Your task to perform on an android device: Search for Mexican restaurants on Maps Image 0: 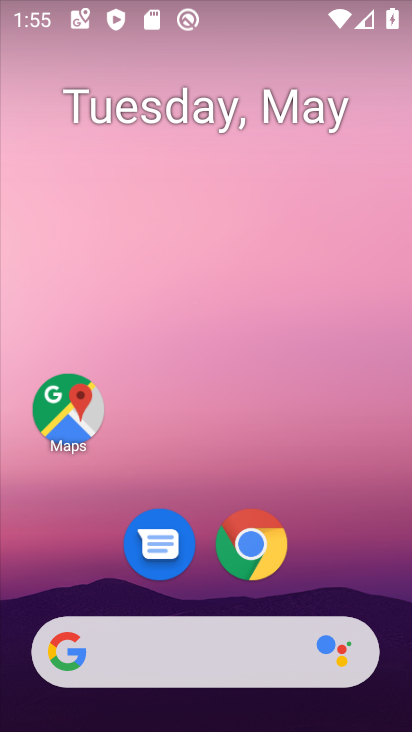
Step 0: click (58, 421)
Your task to perform on an android device: Search for Mexican restaurants on Maps Image 1: 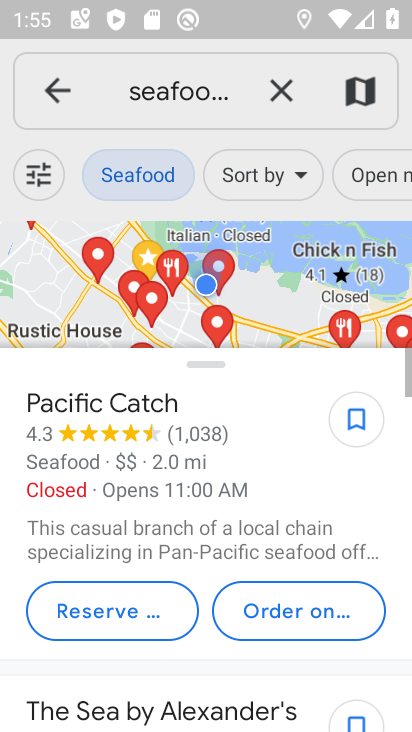
Step 1: click (231, 102)
Your task to perform on an android device: Search for Mexican restaurants on Maps Image 2: 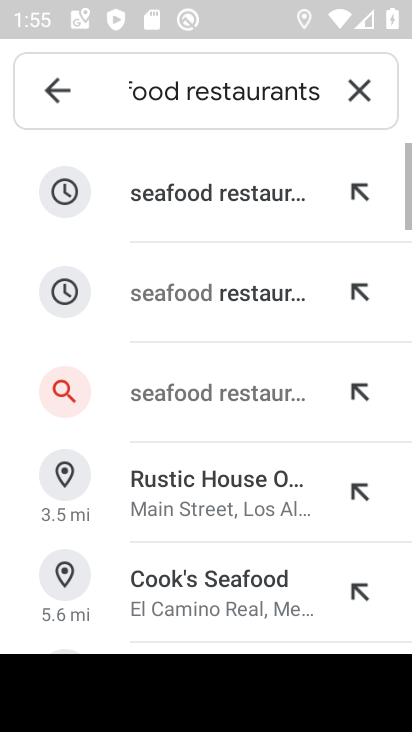
Step 2: click (359, 82)
Your task to perform on an android device: Search for Mexican restaurants on Maps Image 3: 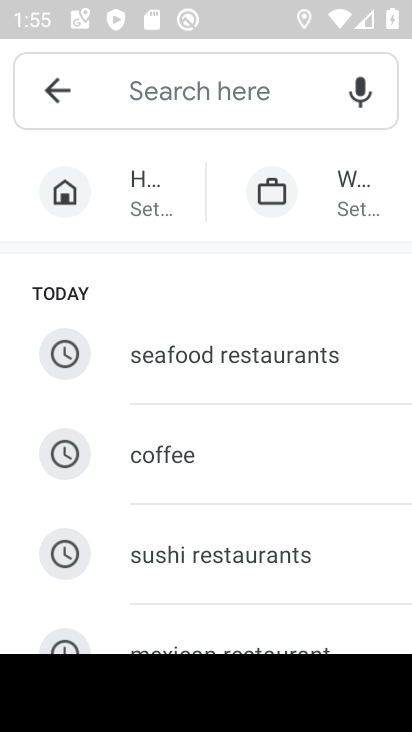
Step 3: drag from (293, 502) to (295, 167)
Your task to perform on an android device: Search for Mexican restaurants on Maps Image 4: 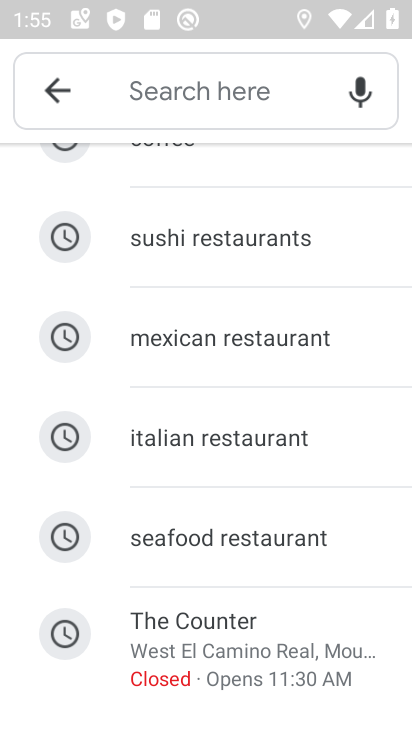
Step 4: click (259, 91)
Your task to perform on an android device: Search for Mexican restaurants on Maps Image 5: 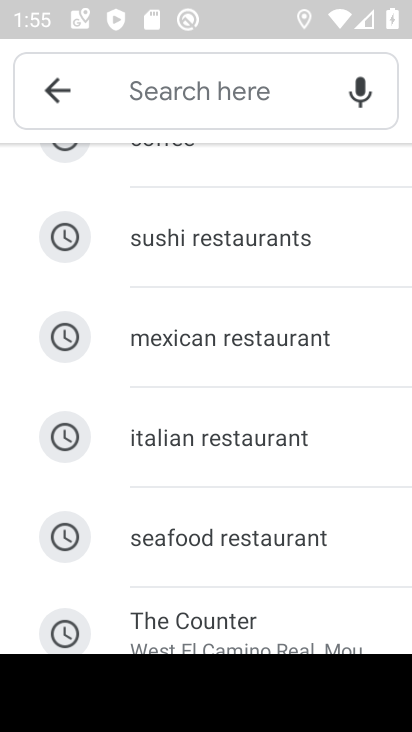
Step 5: type "Mexican restaurants"
Your task to perform on an android device: Search for Mexican restaurants on Maps Image 6: 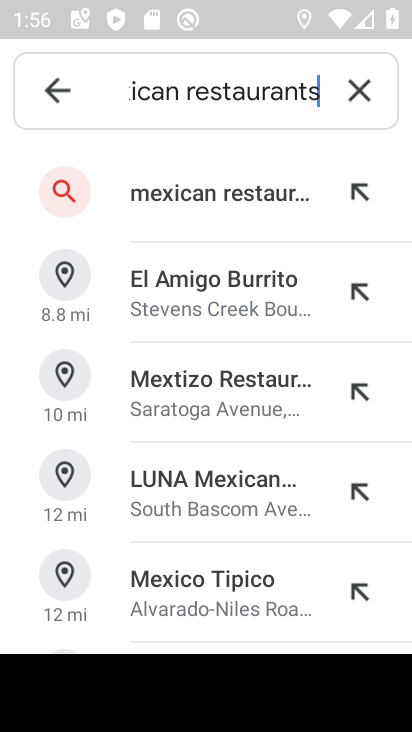
Step 6: press enter
Your task to perform on an android device: Search for Mexican restaurants on Maps Image 7: 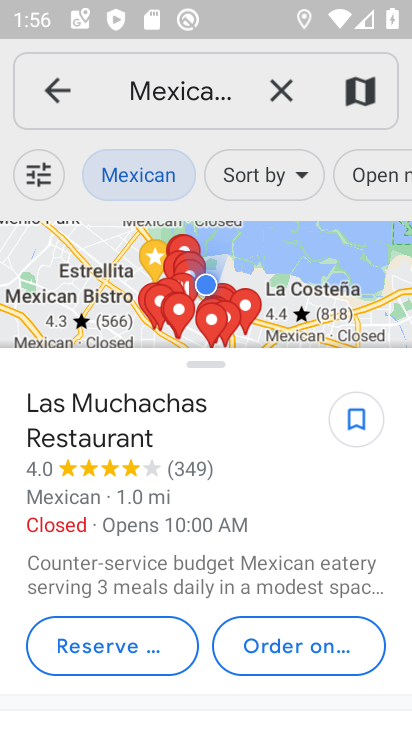
Step 7: task complete